Your task to perform on an android device: change notifications settings Image 0: 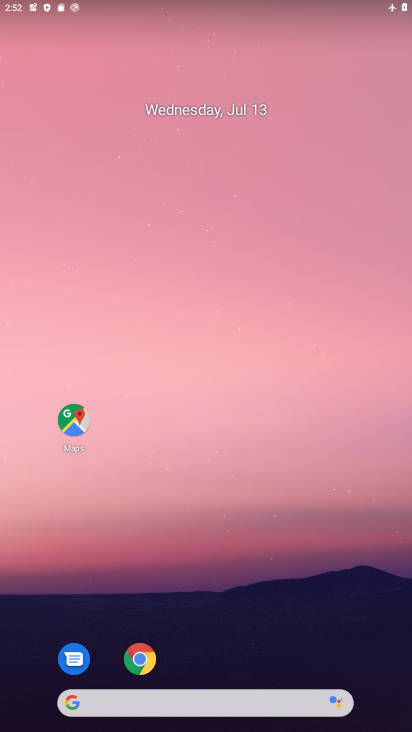
Step 0: drag from (364, 650) to (293, 199)
Your task to perform on an android device: change notifications settings Image 1: 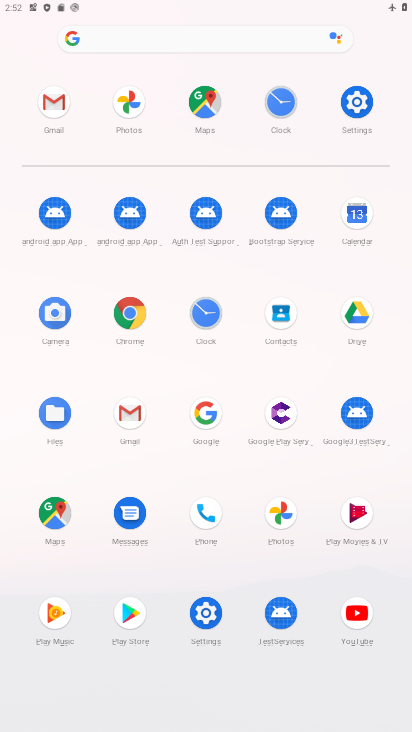
Step 1: click (204, 613)
Your task to perform on an android device: change notifications settings Image 2: 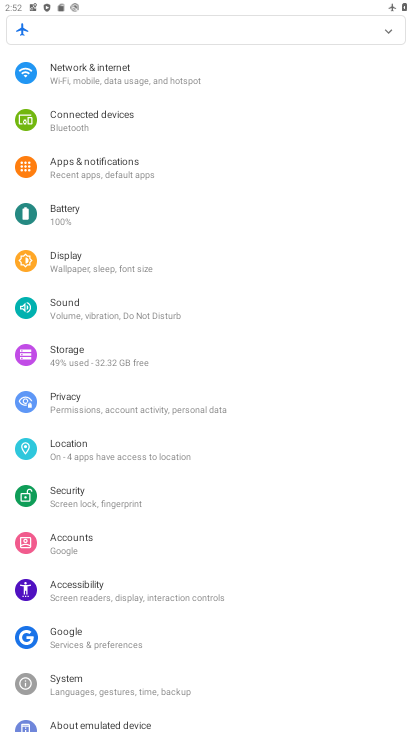
Step 2: click (84, 170)
Your task to perform on an android device: change notifications settings Image 3: 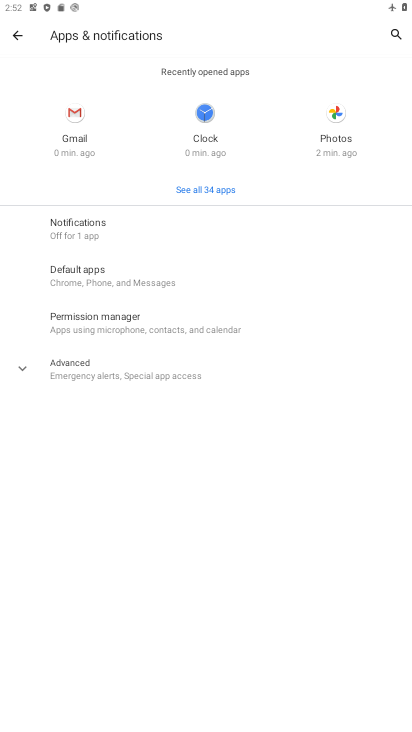
Step 3: click (54, 232)
Your task to perform on an android device: change notifications settings Image 4: 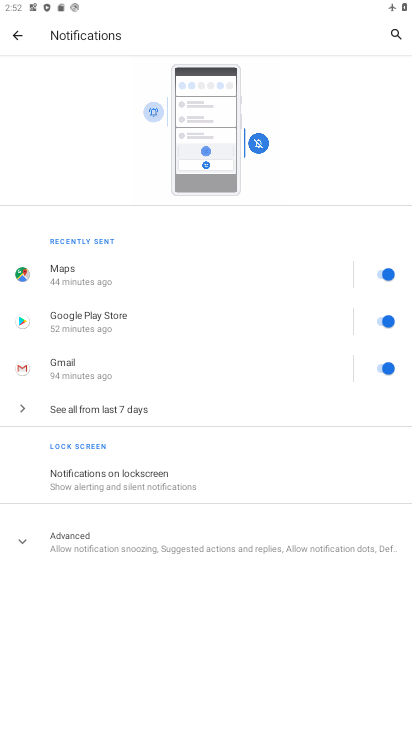
Step 4: click (20, 543)
Your task to perform on an android device: change notifications settings Image 5: 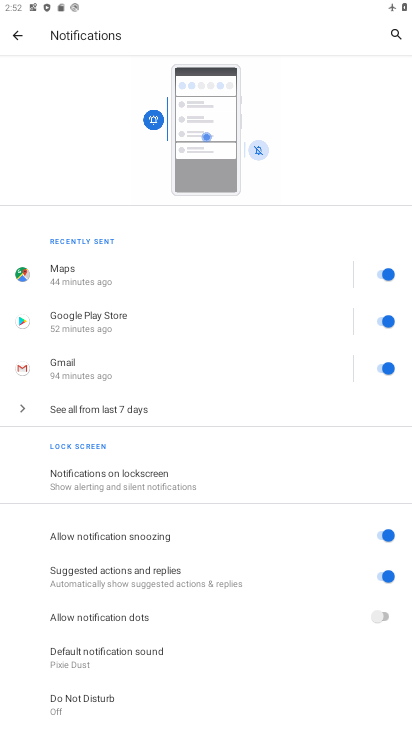
Step 5: click (387, 612)
Your task to perform on an android device: change notifications settings Image 6: 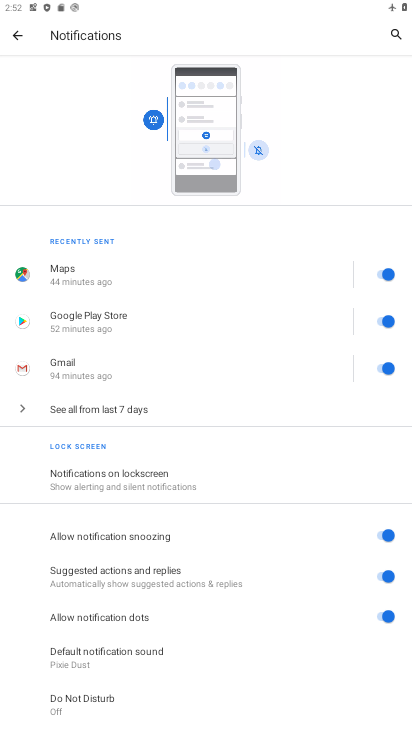
Step 6: click (381, 531)
Your task to perform on an android device: change notifications settings Image 7: 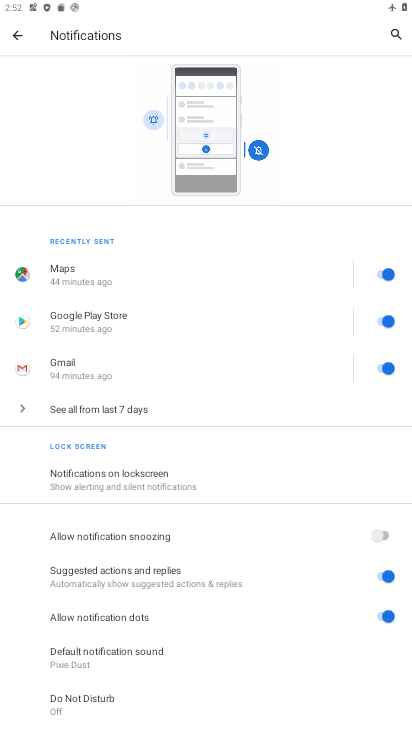
Step 7: click (380, 572)
Your task to perform on an android device: change notifications settings Image 8: 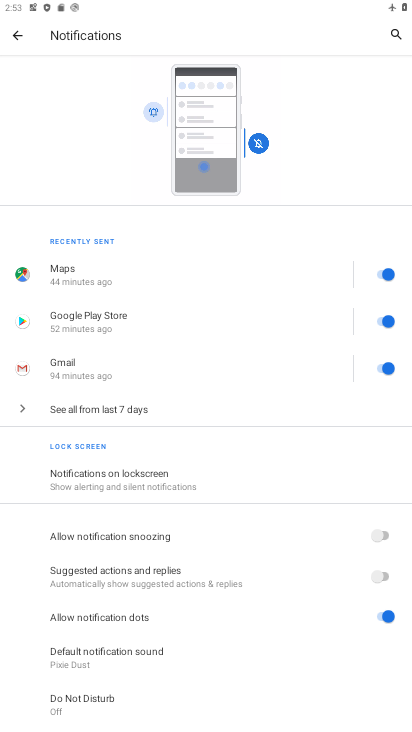
Step 8: task complete